Your task to perform on an android device: Go to battery settings Image 0: 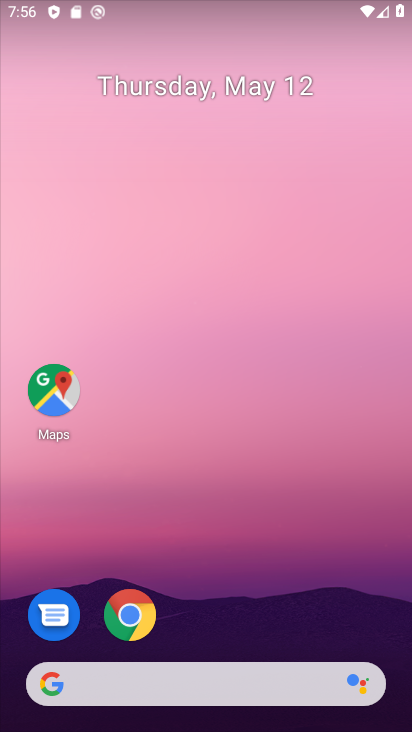
Step 0: drag from (294, 545) to (265, 34)
Your task to perform on an android device: Go to battery settings Image 1: 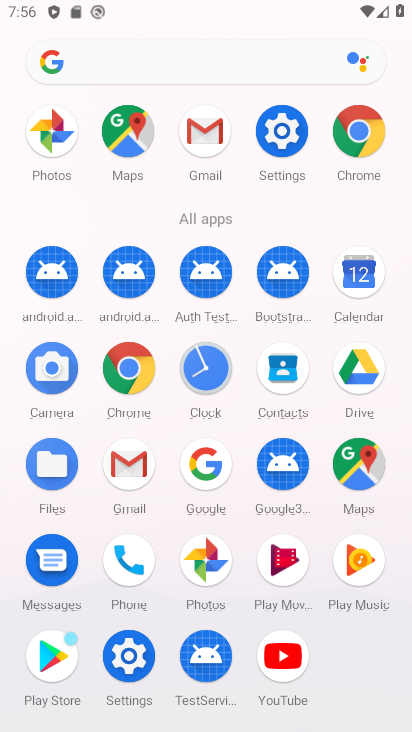
Step 1: drag from (6, 513) to (11, 293)
Your task to perform on an android device: Go to battery settings Image 2: 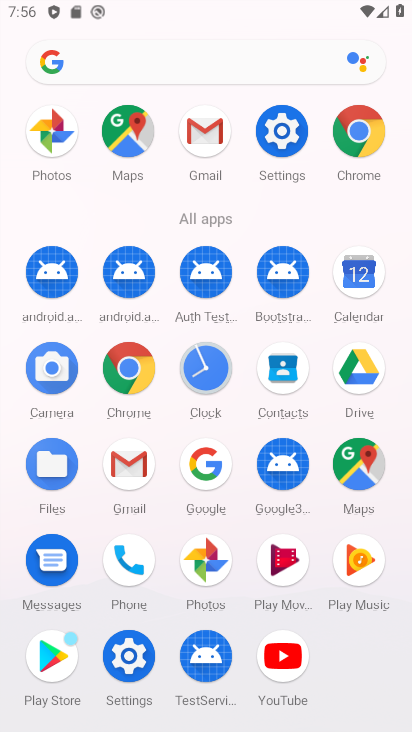
Step 2: click (129, 658)
Your task to perform on an android device: Go to battery settings Image 3: 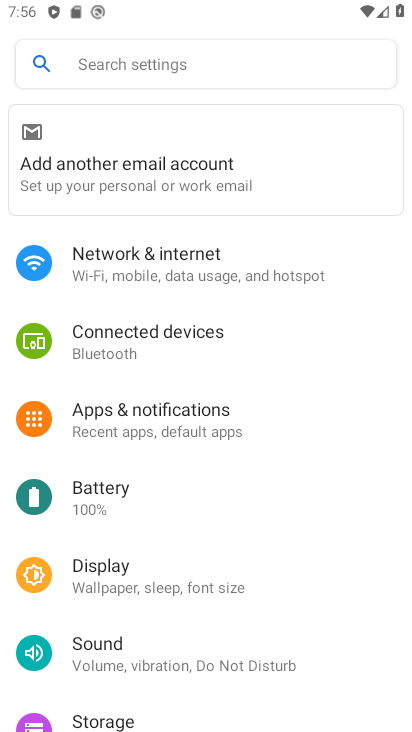
Step 3: click (134, 488)
Your task to perform on an android device: Go to battery settings Image 4: 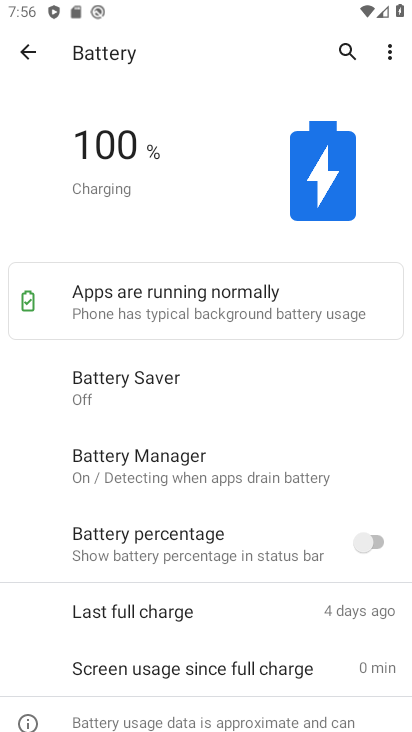
Step 4: task complete